Your task to perform on an android device: Open notification settings Image 0: 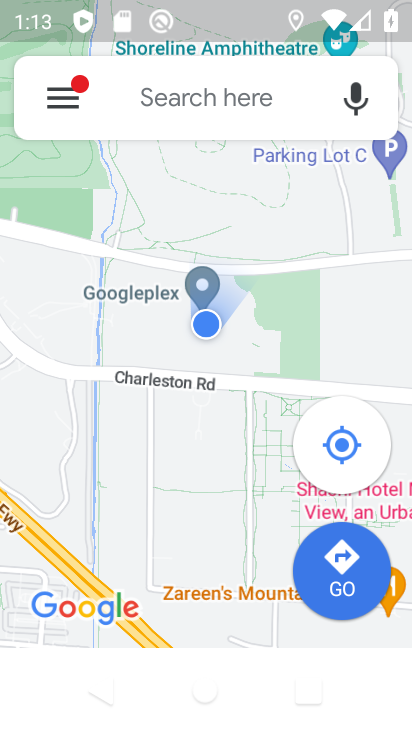
Step 0: press home button
Your task to perform on an android device: Open notification settings Image 1: 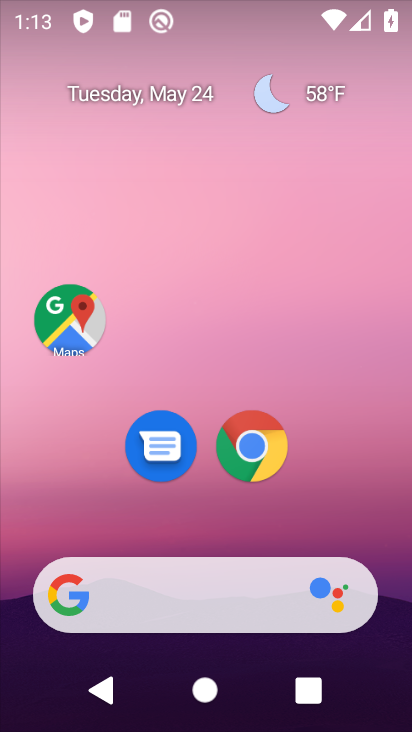
Step 1: drag from (195, 603) to (201, 174)
Your task to perform on an android device: Open notification settings Image 2: 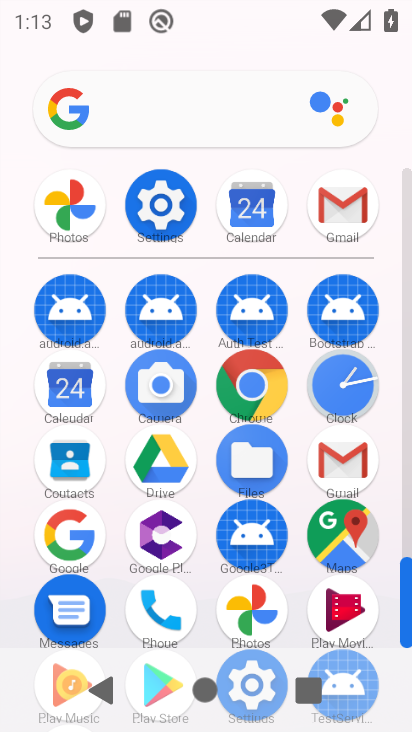
Step 2: drag from (253, 374) to (274, 130)
Your task to perform on an android device: Open notification settings Image 3: 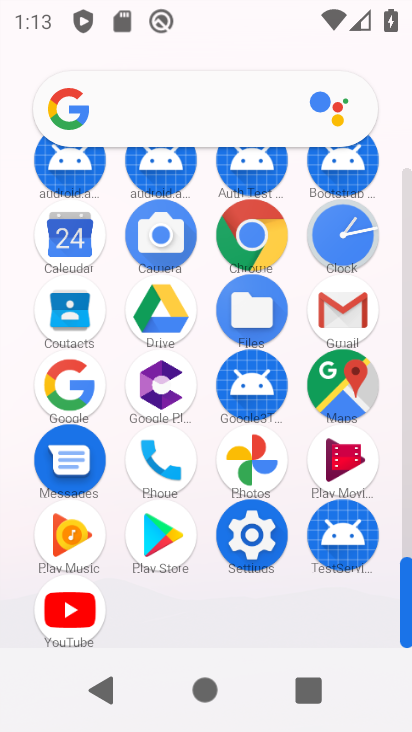
Step 3: click (248, 537)
Your task to perform on an android device: Open notification settings Image 4: 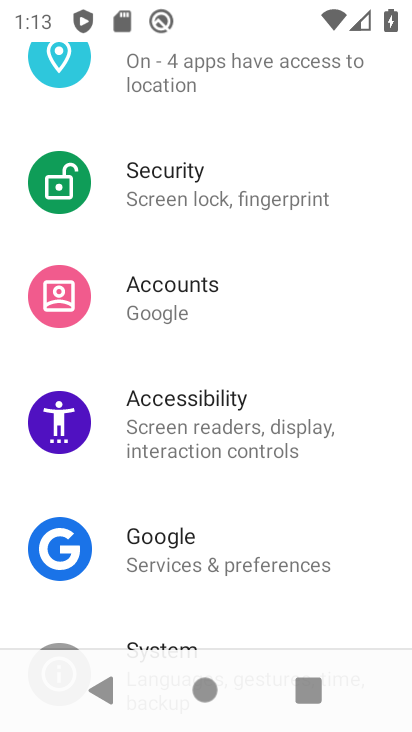
Step 4: drag from (218, 293) to (272, 463)
Your task to perform on an android device: Open notification settings Image 5: 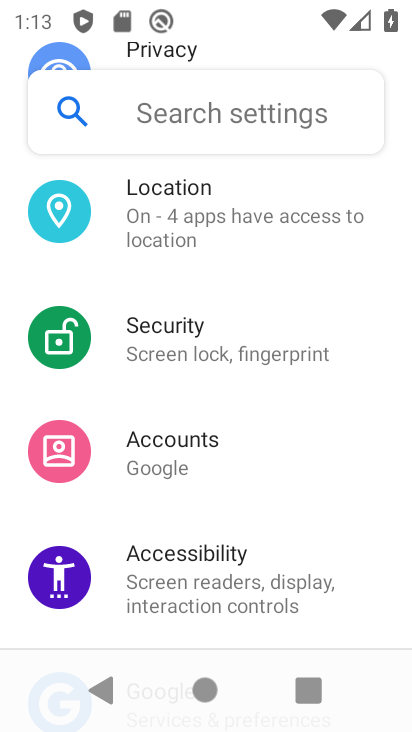
Step 5: drag from (246, 337) to (276, 536)
Your task to perform on an android device: Open notification settings Image 6: 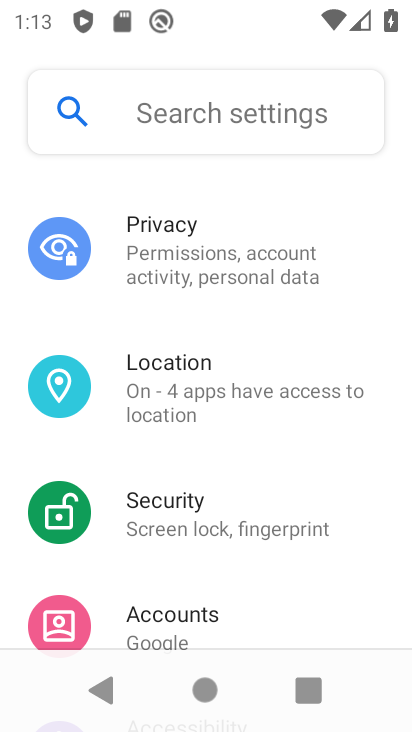
Step 6: drag from (251, 389) to (272, 537)
Your task to perform on an android device: Open notification settings Image 7: 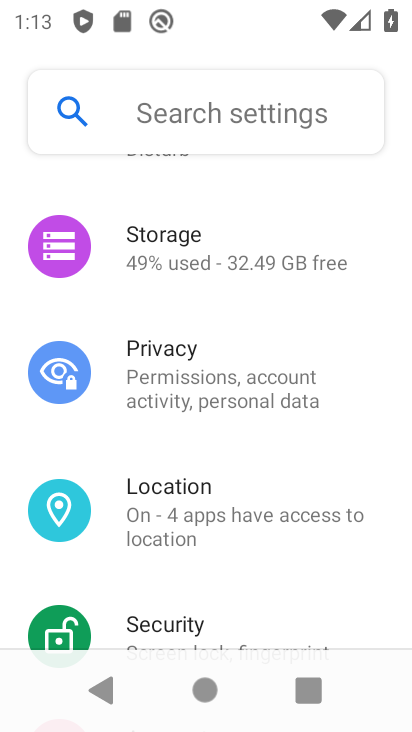
Step 7: drag from (227, 333) to (180, 468)
Your task to perform on an android device: Open notification settings Image 8: 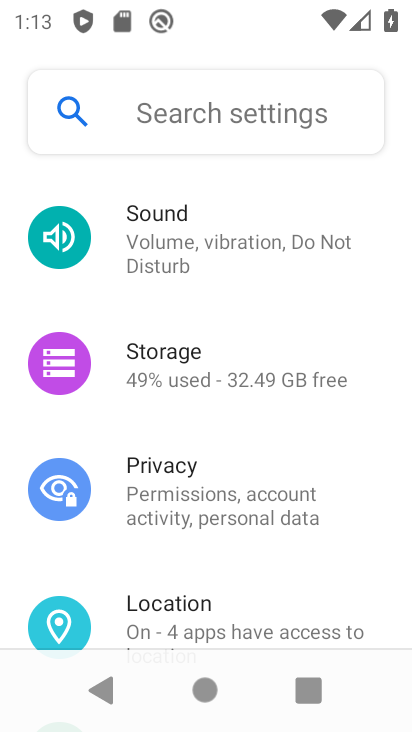
Step 8: drag from (213, 335) to (226, 547)
Your task to perform on an android device: Open notification settings Image 9: 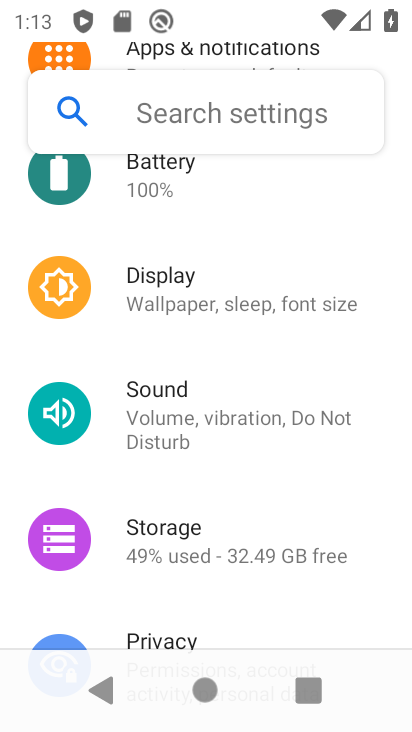
Step 9: drag from (220, 363) to (236, 538)
Your task to perform on an android device: Open notification settings Image 10: 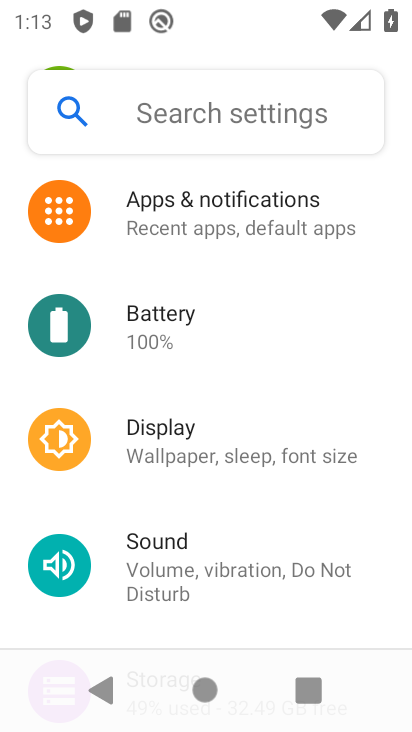
Step 10: click (230, 211)
Your task to perform on an android device: Open notification settings Image 11: 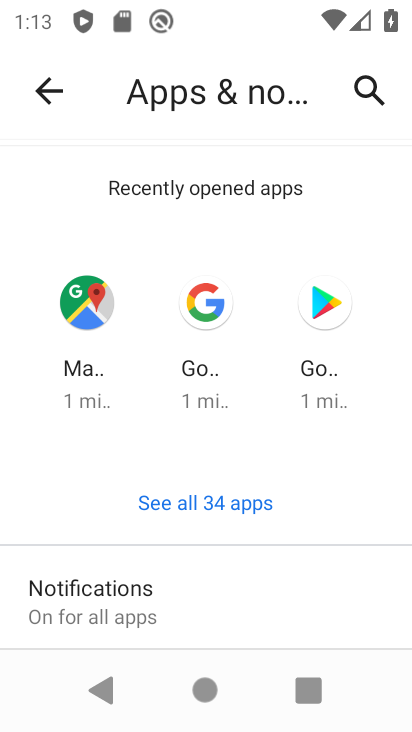
Step 11: drag from (270, 552) to (307, 275)
Your task to perform on an android device: Open notification settings Image 12: 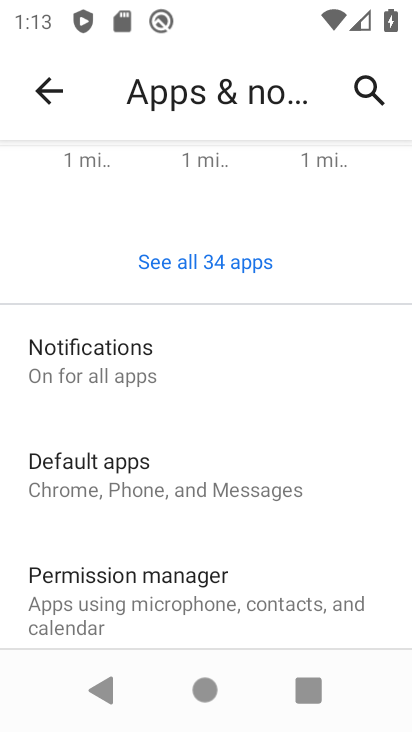
Step 12: drag from (274, 507) to (275, 395)
Your task to perform on an android device: Open notification settings Image 13: 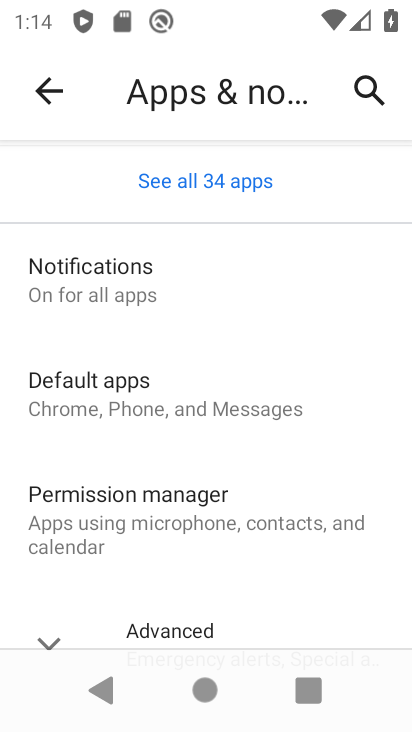
Step 13: click (176, 290)
Your task to perform on an android device: Open notification settings Image 14: 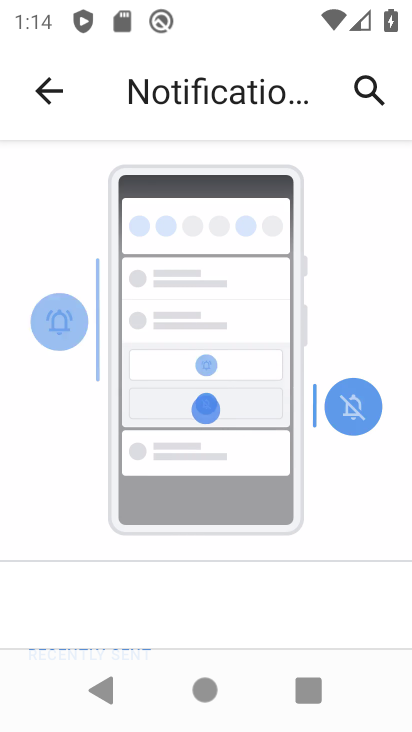
Step 14: task complete